Your task to perform on an android device: Open calendar and show me the fourth week of next month Image 0: 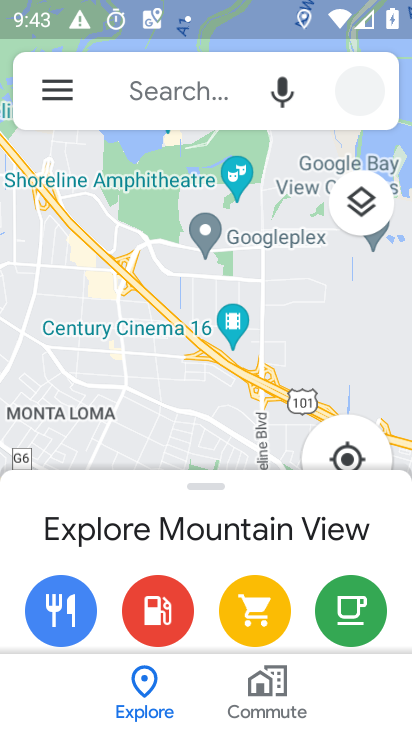
Step 0: press home button
Your task to perform on an android device: Open calendar and show me the fourth week of next month Image 1: 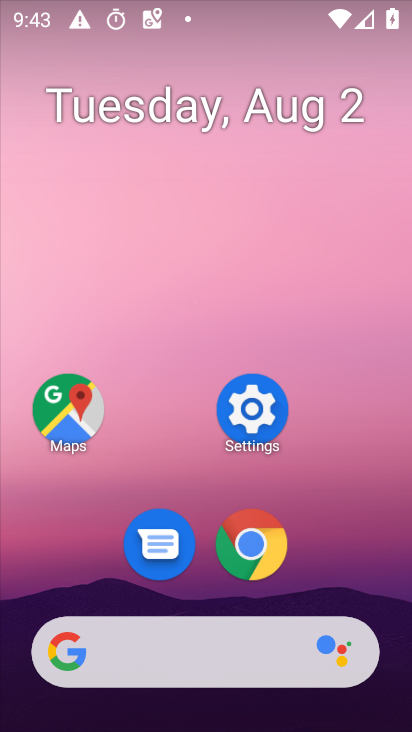
Step 1: drag from (188, 632) to (292, 45)
Your task to perform on an android device: Open calendar and show me the fourth week of next month Image 2: 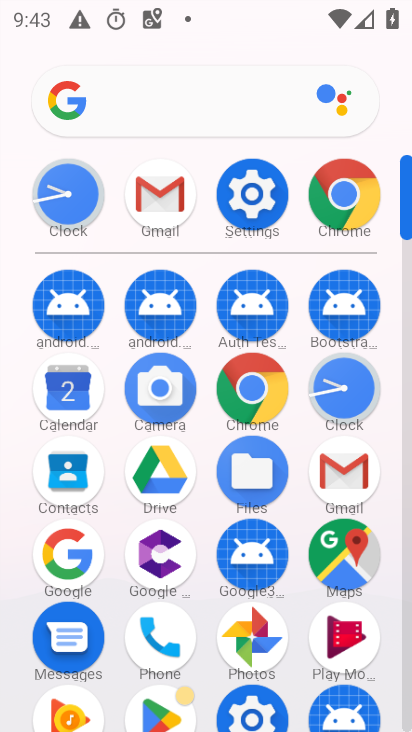
Step 2: click (60, 405)
Your task to perform on an android device: Open calendar and show me the fourth week of next month Image 3: 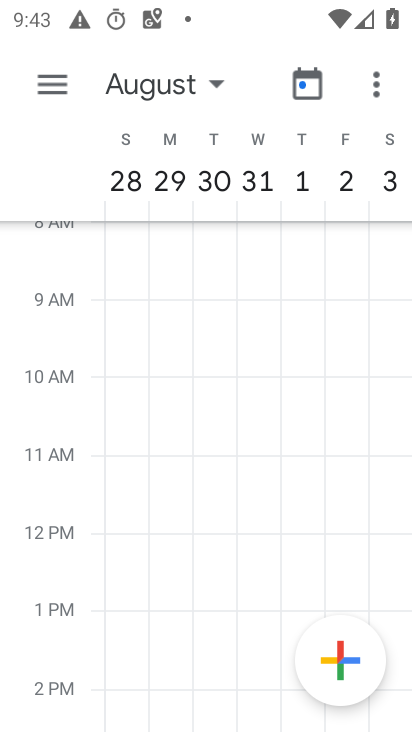
Step 3: click (178, 81)
Your task to perform on an android device: Open calendar and show me the fourth week of next month Image 4: 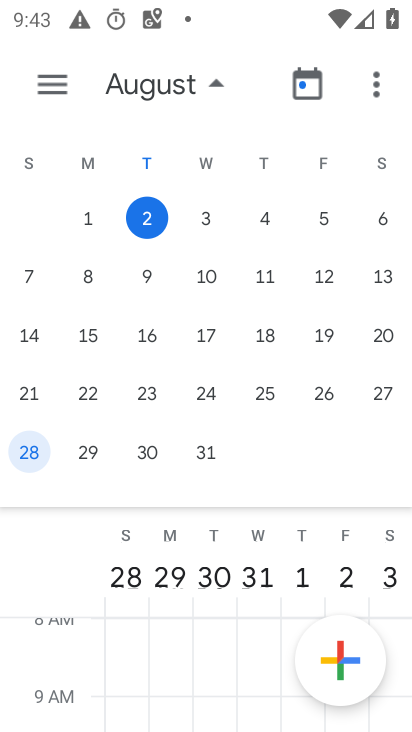
Step 4: drag from (348, 386) to (0, 384)
Your task to perform on an android device: Open calendar and show me the fourth week of next month Image 5: 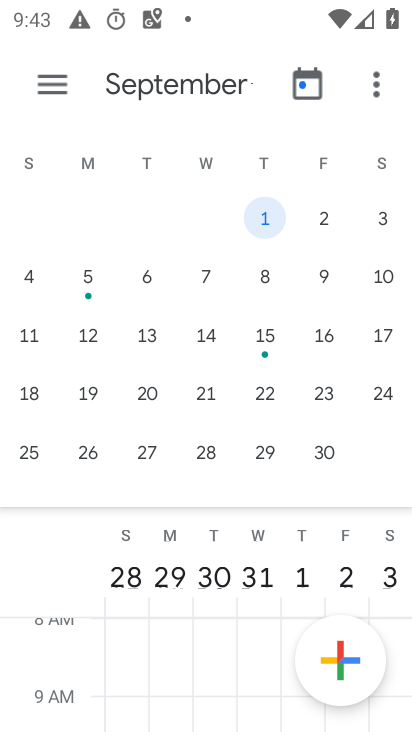
Step 5: click (22, 399)
Your task to perform on an android device: Open calendar and show me the fourth week of next month Image 6: 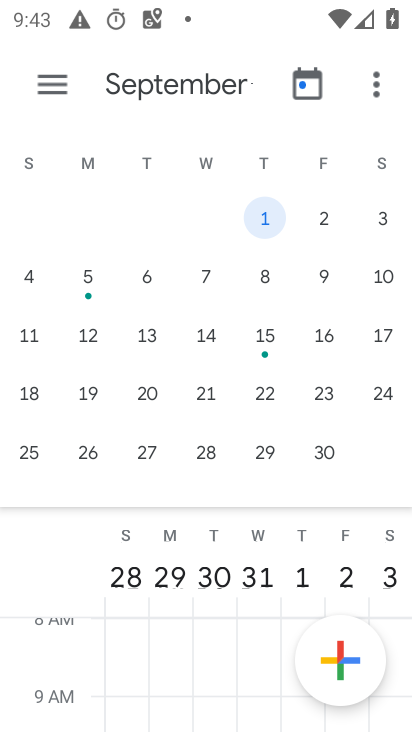
Step 6: click (33, 396)
Your task to perform on an android device: Open calendar and show me the fourth week of next month Image 7: 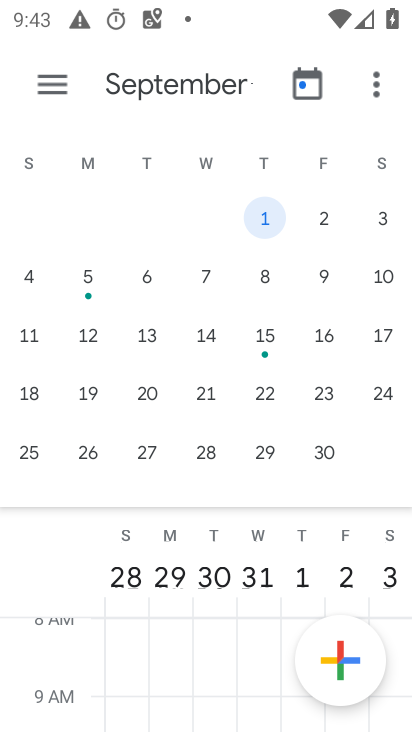
Step 7: click (35, 391)
Your task to perform on an android device: Open calendar and show me the fourth week of next month Image 8: 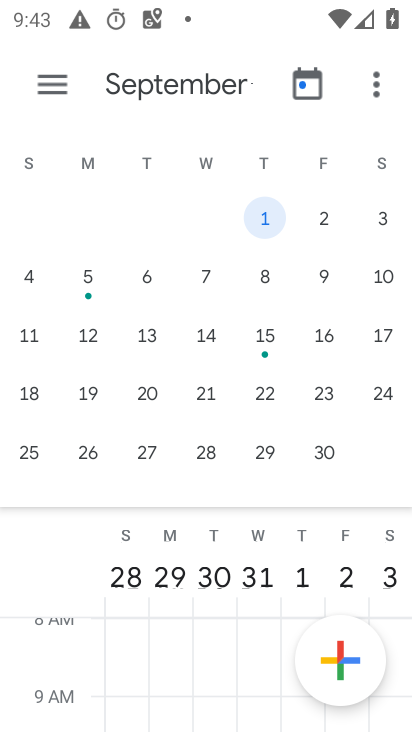
Step 8: click (32, 388)
Your task to perform on an android device: Open calendar and show me the fourth week of next month Image 9: 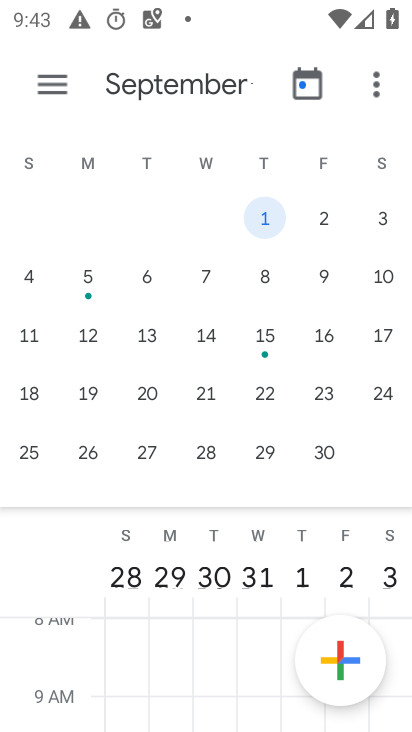
Step 9: click (35, 386)
Your task to perform on an android device: Open calendar and show me the fourth week of next month Image 10: 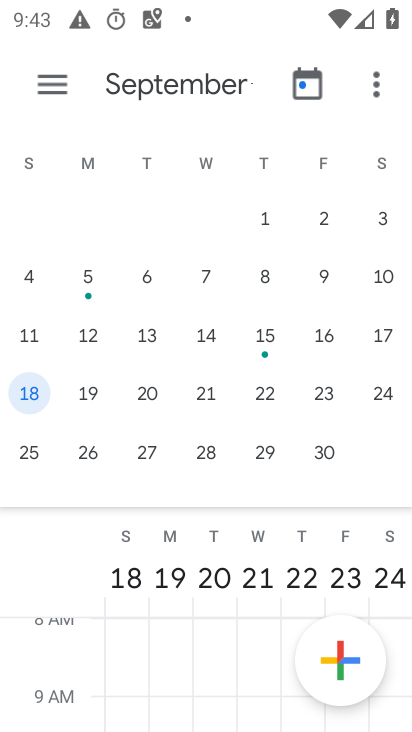
Step 10: click (91, 388)
Your task to perform on an android device: Open calendar and show me the fourth week of next month Image 11: 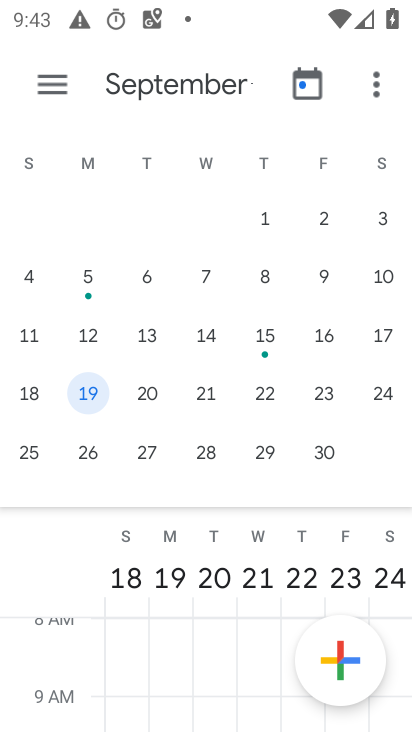
Step 11: click (25, 396)
Your task to perform on an android device: Open calendar and show me the fourth week of next month Image 12: 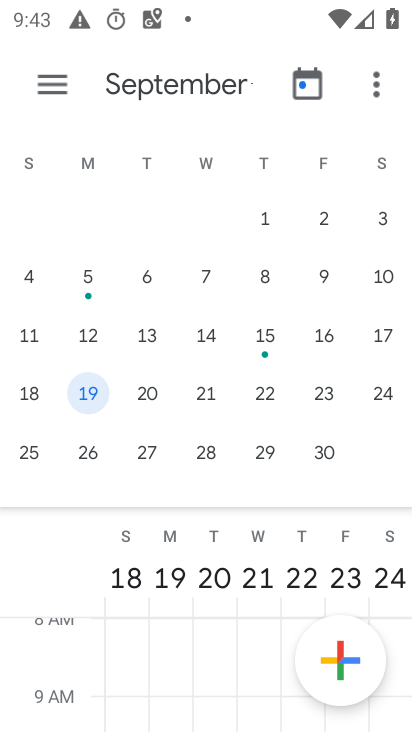
Step 12: click (33, 390)
Your task to perform on an android device: Open calendar and show me the fourth week of next month Image 13: 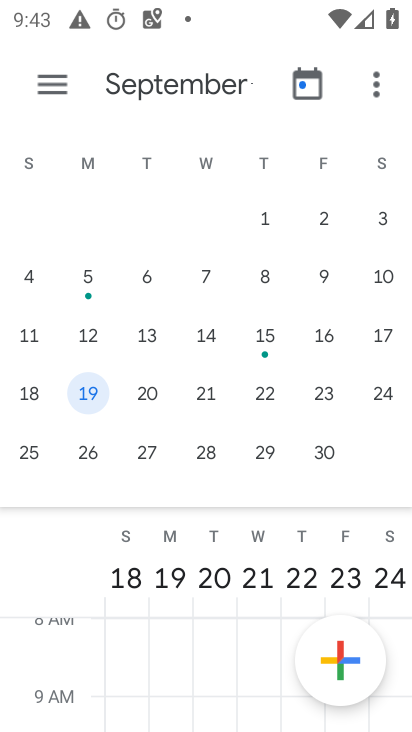
Step 13: click (41, 394)
Your task to perform on an android device: Open calendar and show me the fourth week of next month Image 14: 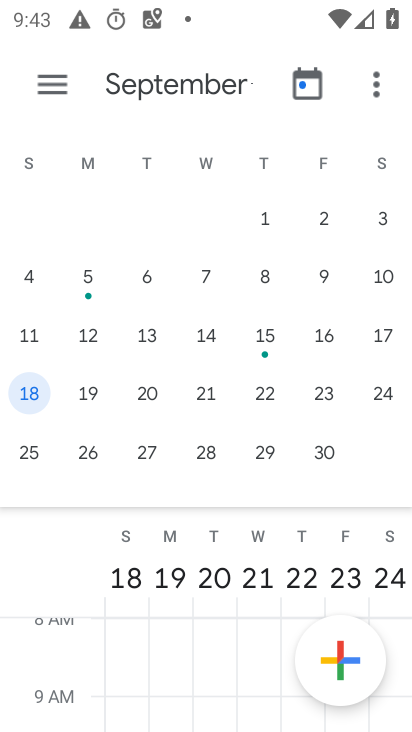
Step 14: click (54, 90)
Your task to perform on an android device: Open calendar and show me the fourth week of next month Image 15: 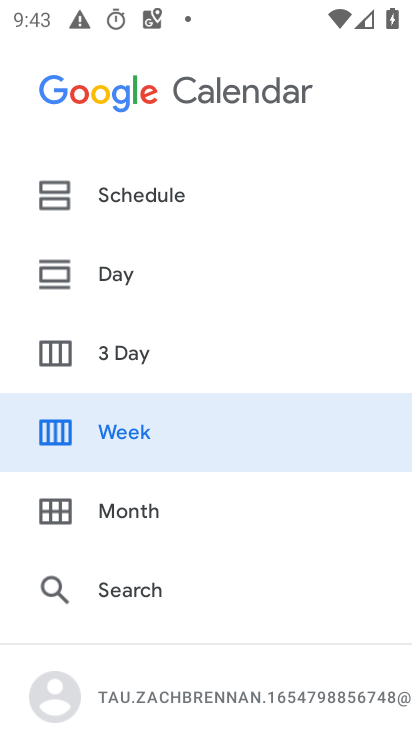
Step 15: click (113, 424)
Your task to perform on an android device: Open calendar and show me the fourth week of next month Image 16: 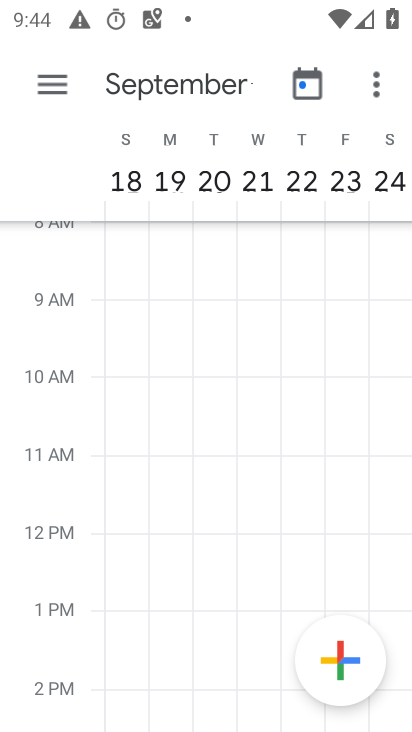
Step 16: task complete